Your task to perform on an android device: Search for usb-c to usb-a on amazon.com, select the first entry, add it to the cart, then select checkout. Image 0: 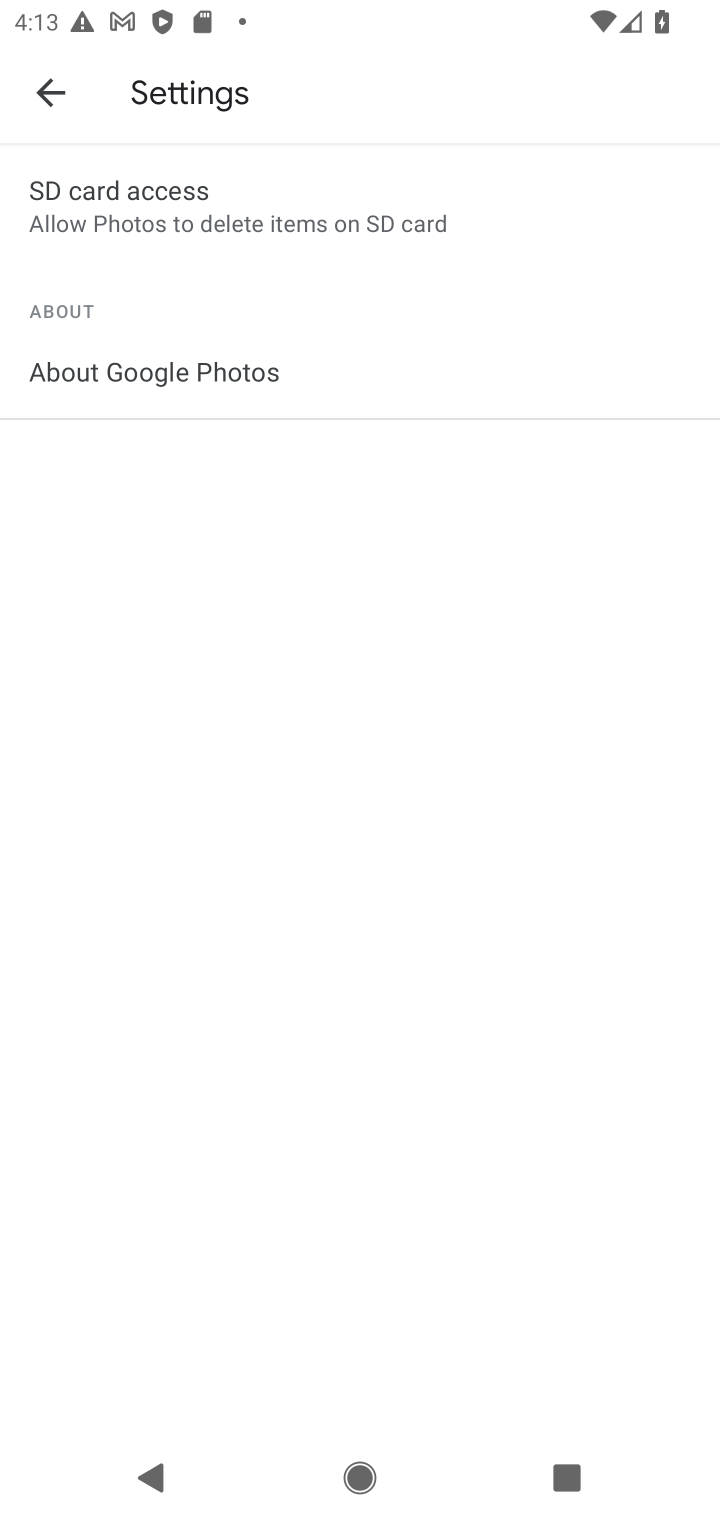
Step 0: press home button
Your task to perform on an android device: Search for usb-c to usb-a on amazon.com, select the first entry, add it to the cart, then select checkout. Image 1: 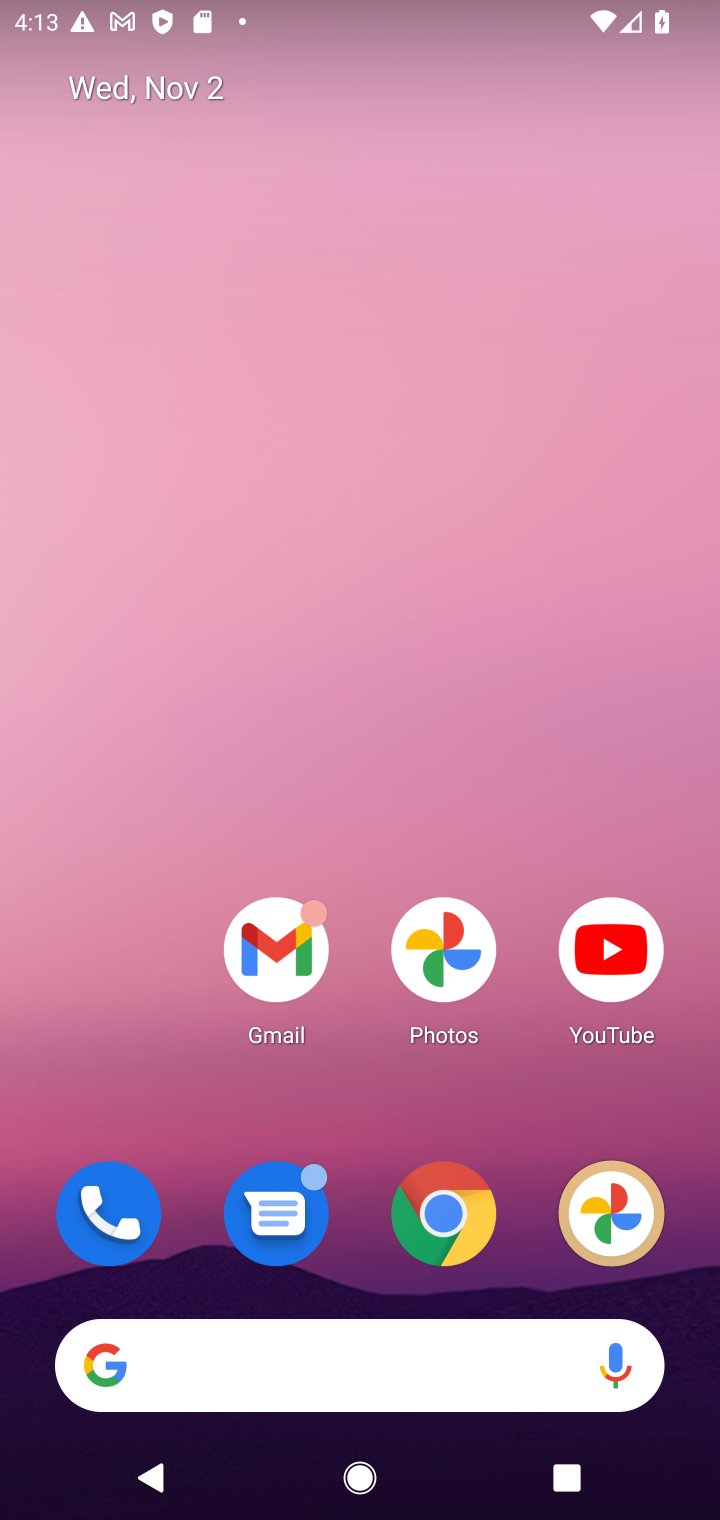
Step 1: drag from (346, 1245) to (431, 480)
Your task to perform on an android device: Search for usb-c to usb-a on amazon.com, select the first entry, add it to the cart, then select checkout. Image 2: 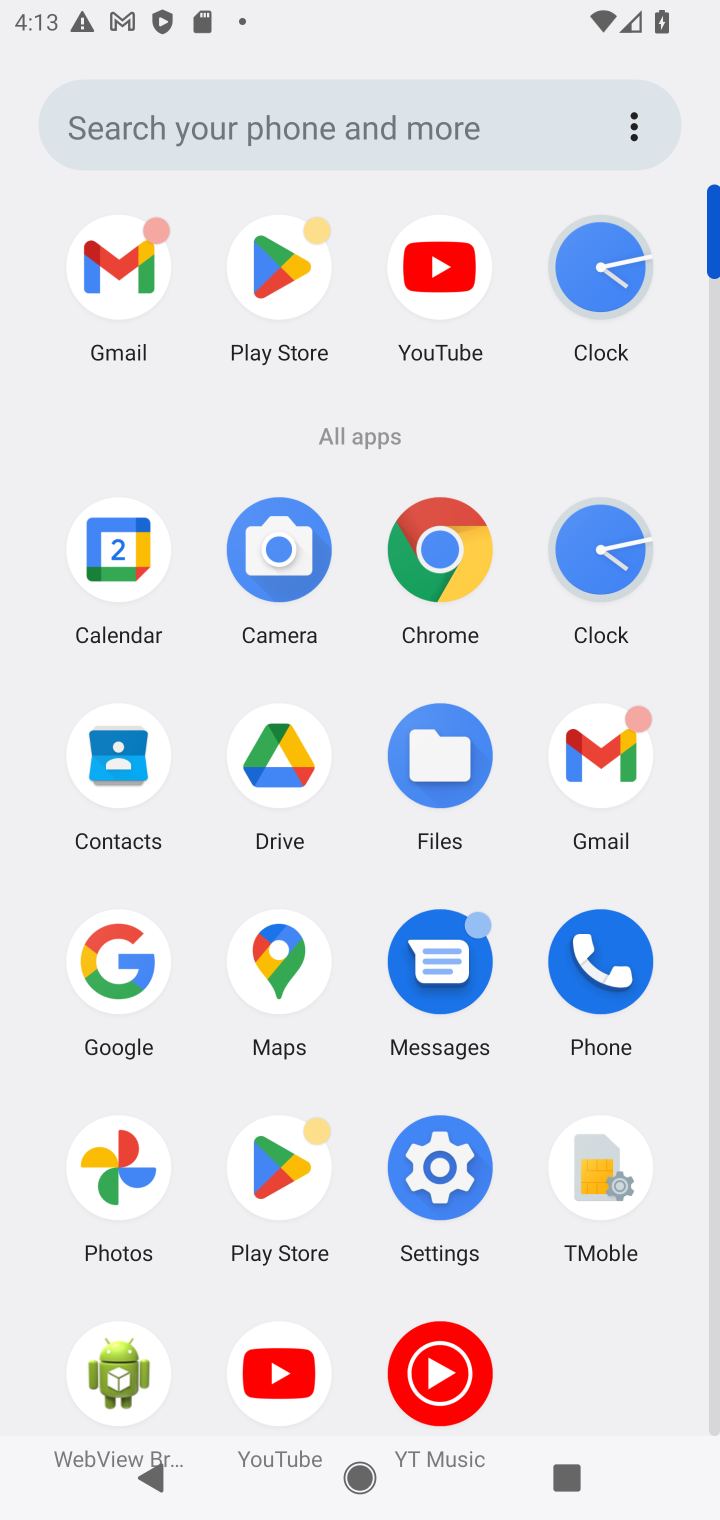
Step 2: click (106, 967)
Your task to perform on an android device: Search for usb-c to usb-a on amazon.com, select the first entry, add it to the cart, then select checkout. Image 3: 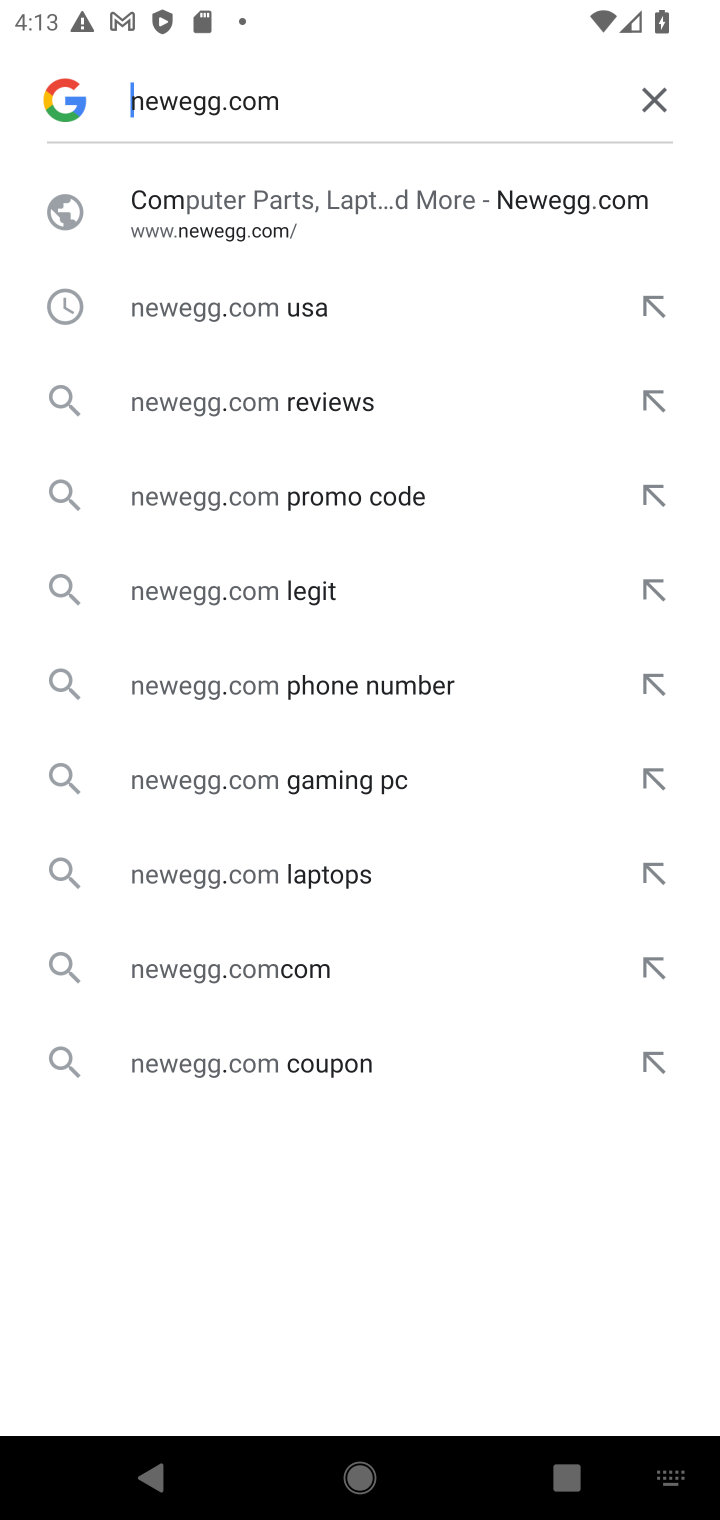
Step 3: click (660, 107)
Your task to perform on an android device: Search for usb-c to usb-a on amazon.com, select the first entry, add it to the cart, then select checkout. Image 4: 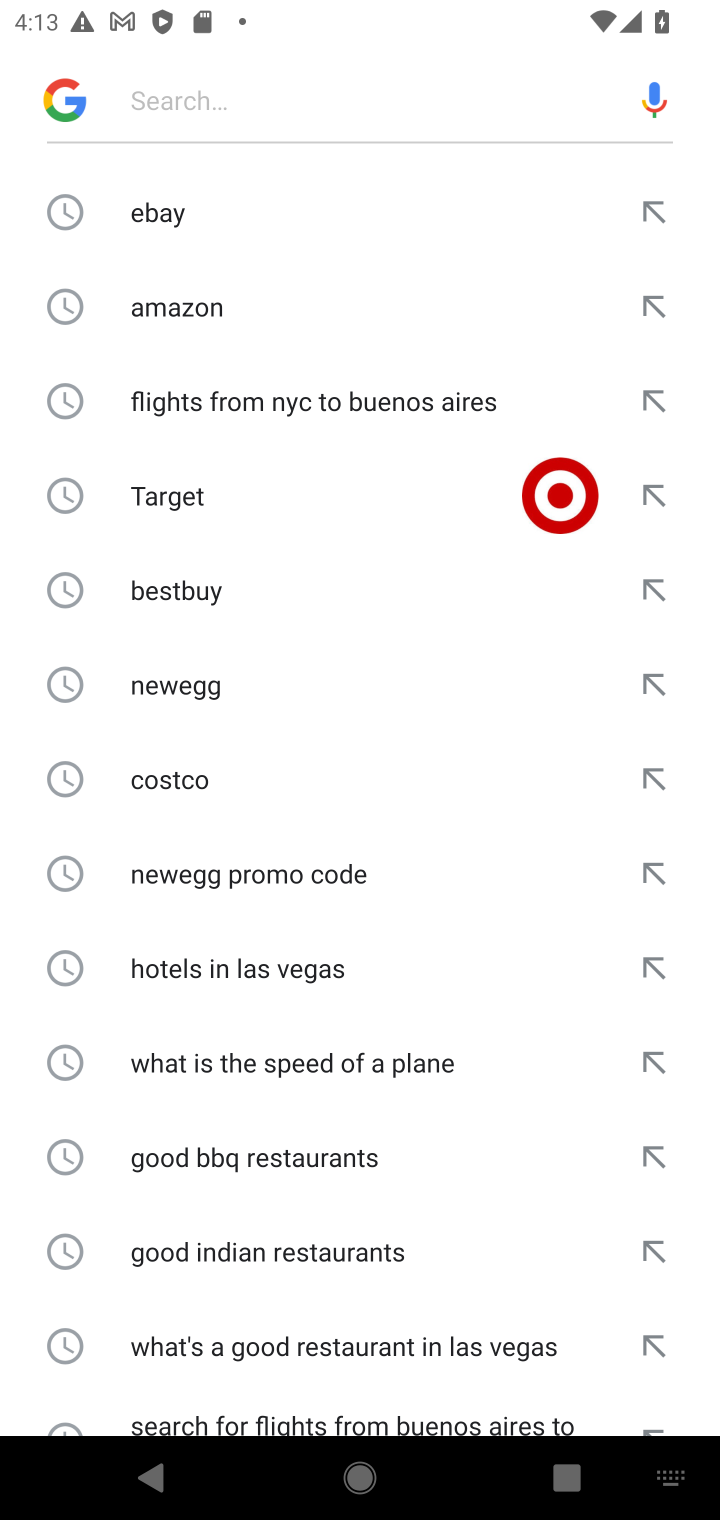
Step 4: type "amazon.com"
Your task to perform on an android device: Search for usb-c to usb-a on amazon.com, select the first entry, add it to the cart, then select checkout. Image 5: 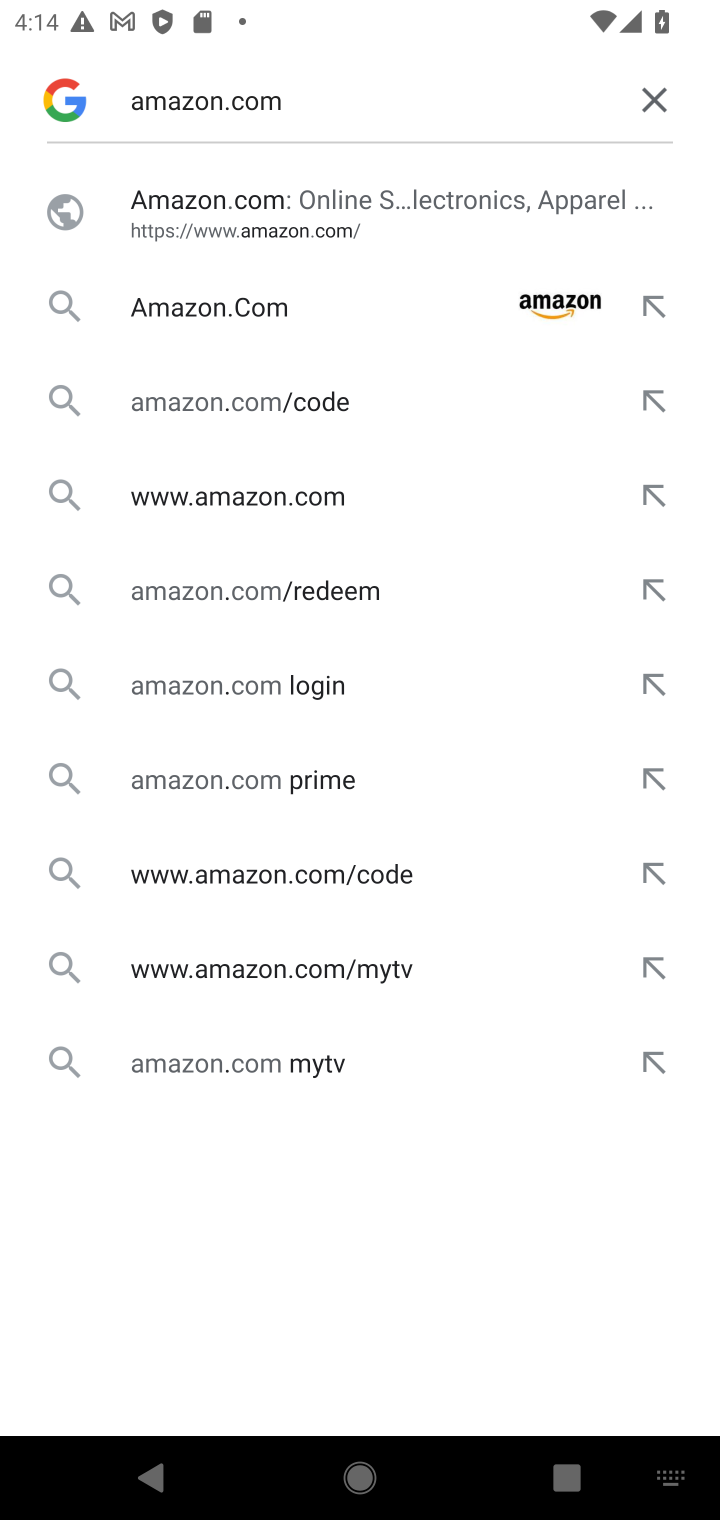
Step 5: click (375, 206)
Your task to perform on an android device: Search for usb-c to usb-a on amazon.com, select the first entry, add it to the cart, then select checkout. Image 6: 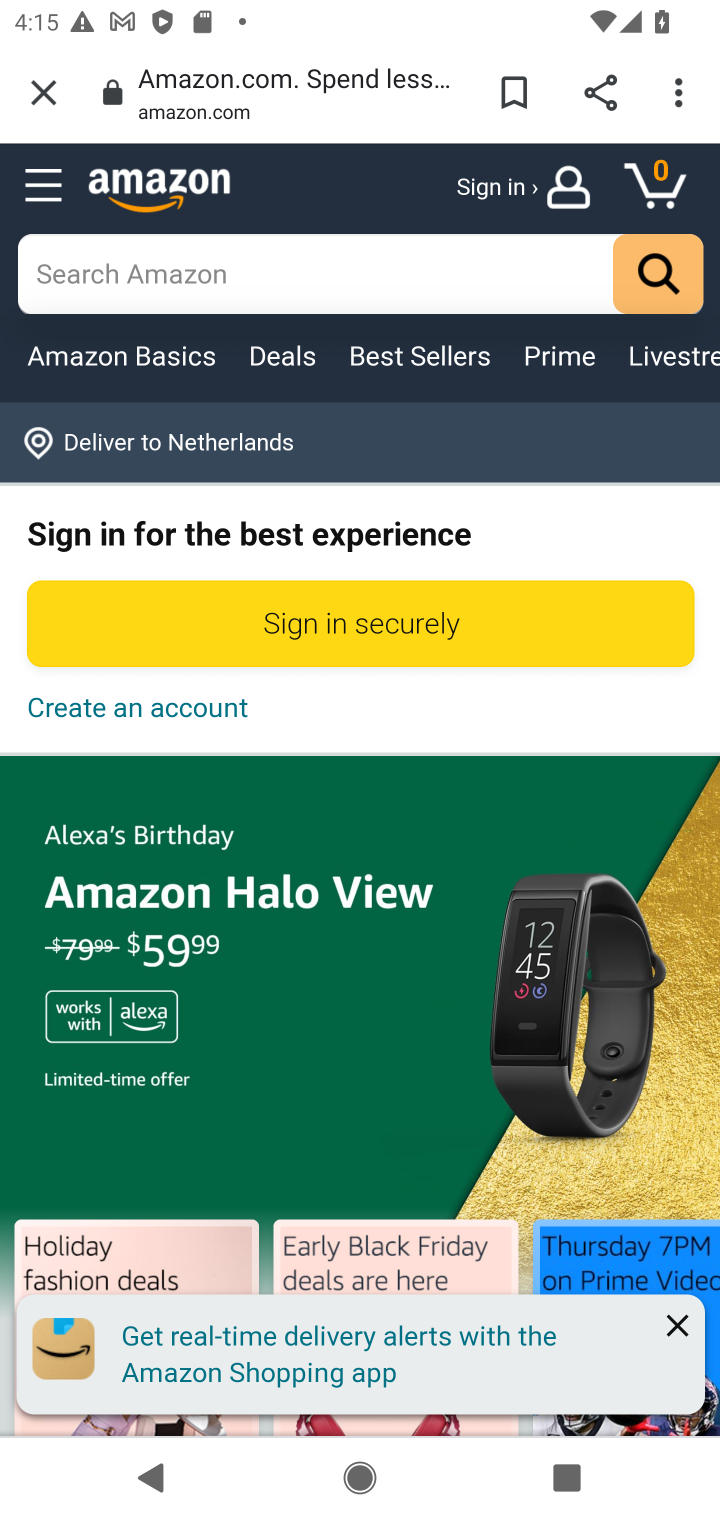
Step 6: click (319, 259)
Your task to perform on an android device: Search for usb-c to usb-a on amazon.com, select the first entry, add it to the cart, then select checkout. Image 7: 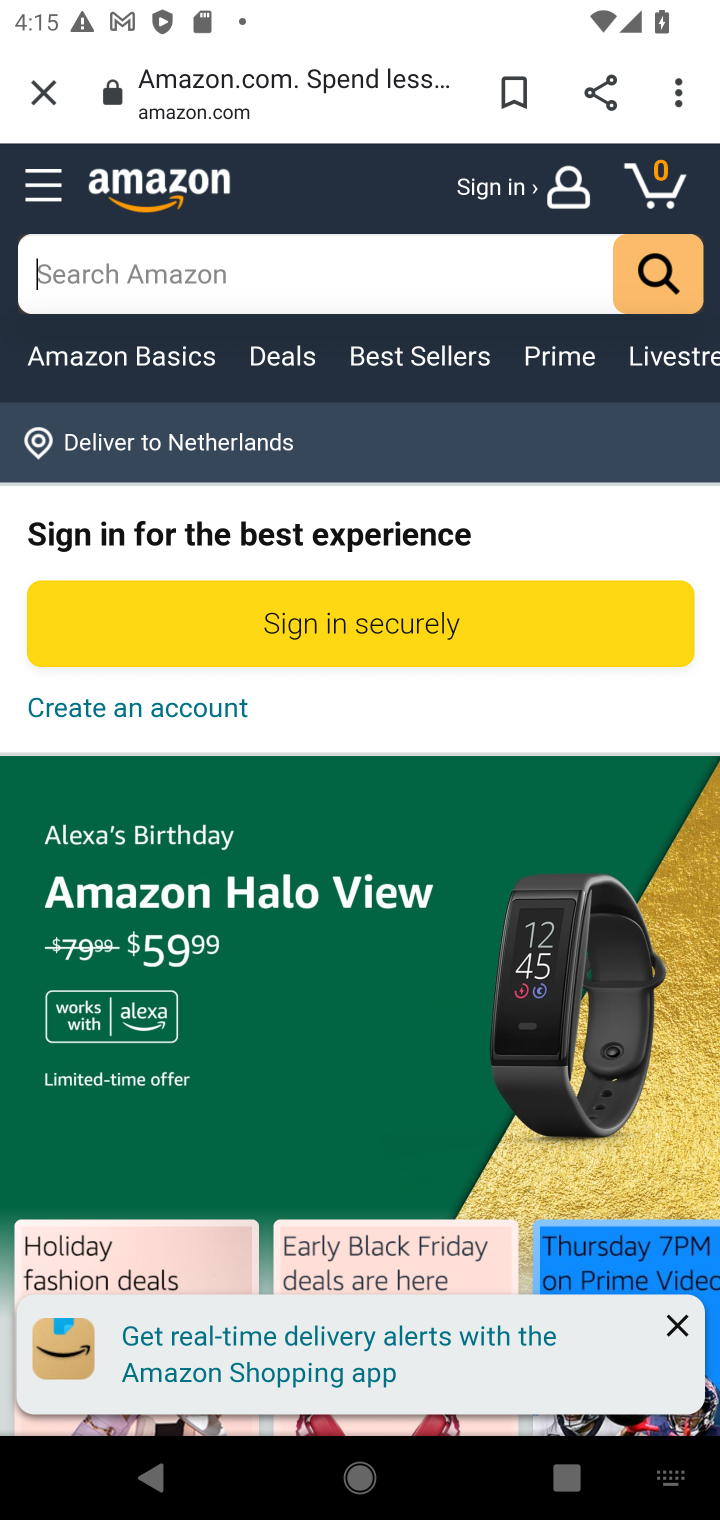
Step 7: type "usb-c to usb-a"
Your task to perform on an android device: Search for usb-c to usb-a on amazon.com, select the first entry, add it to the cart, then select checkout. Image 8: 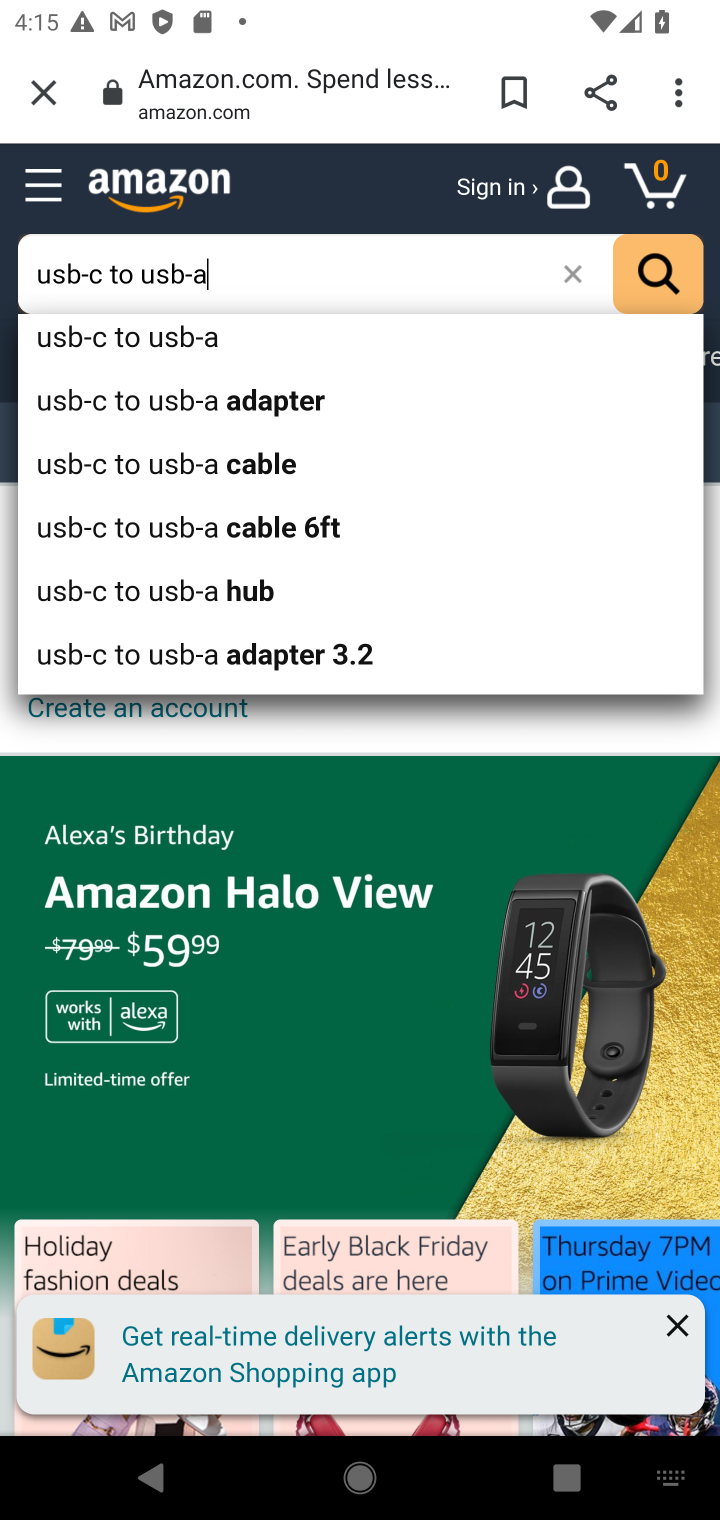
Step 8: click (209, 345)
Your task to perform on an android device: Search for usb-c to usb-a on amazon.com, select the first entry, add it to the cart, then select checkout. Image 9: 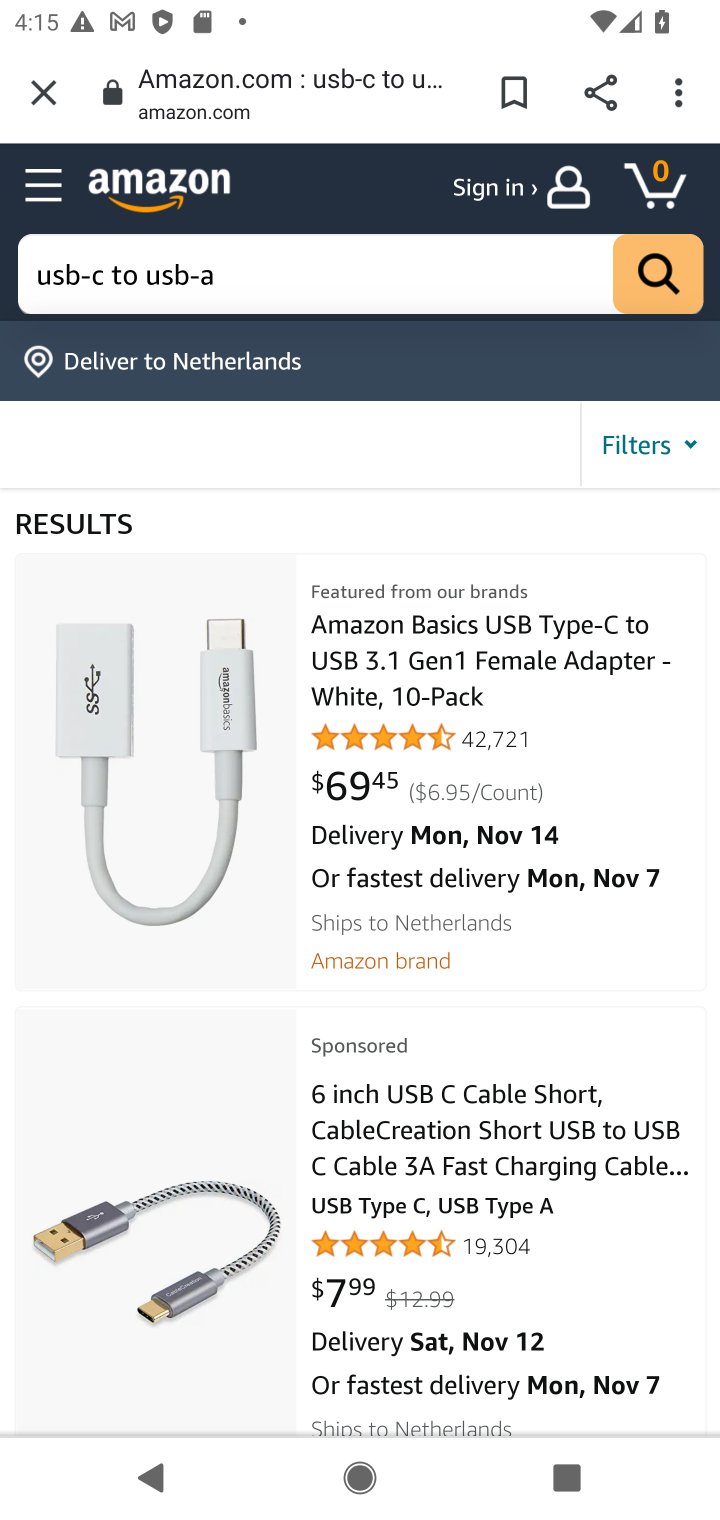
Step 9: click (272, 734)
Your task to perform on an android device: Search for usb-c to usb-a on amazon.com, select the first entry, add it to the cart, then select checkout. Image 10: 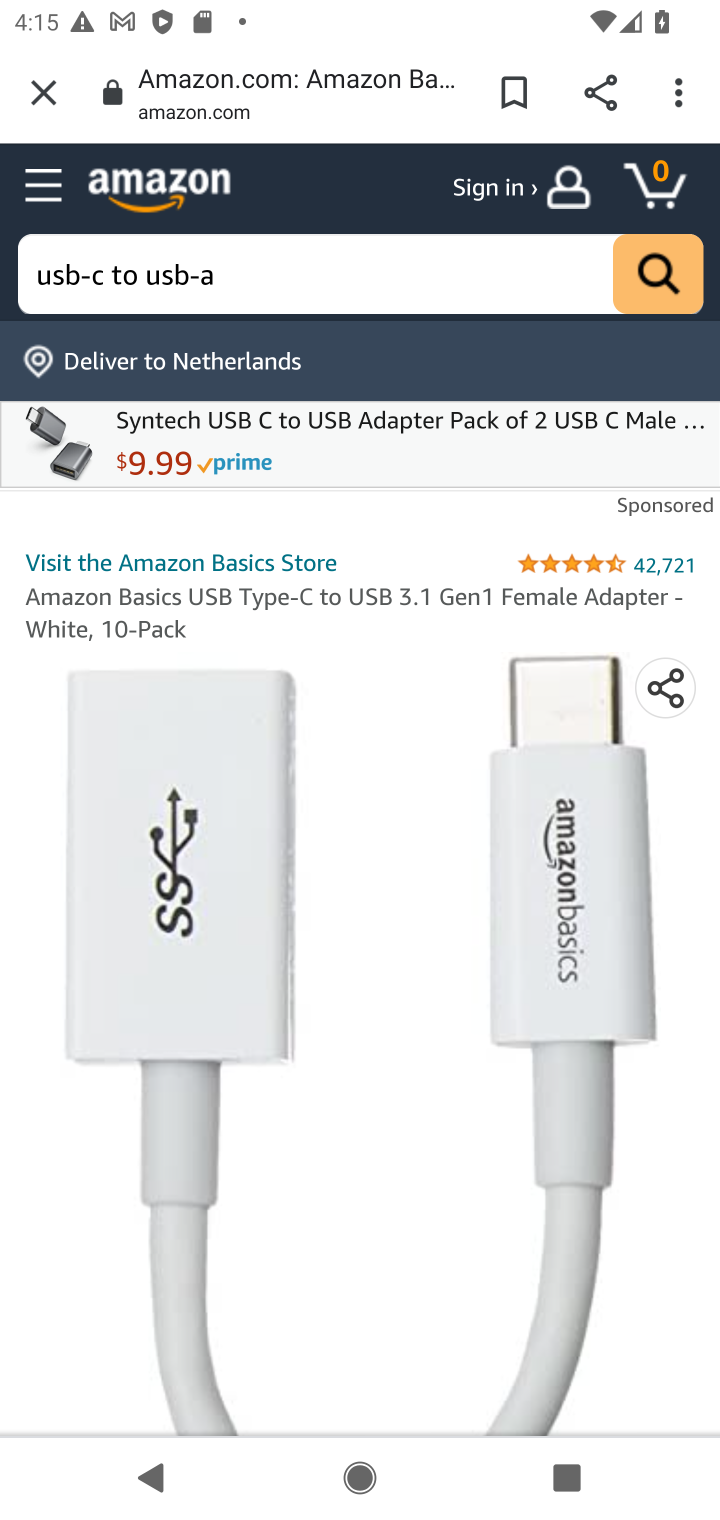
Step 10: drag from (511, 1230) to (511, 253)
Your task to perform on an android device: Search for usb-c to usb-a on amazon.com, select the first entry, add it to the cart, then select checkout. Image 11: 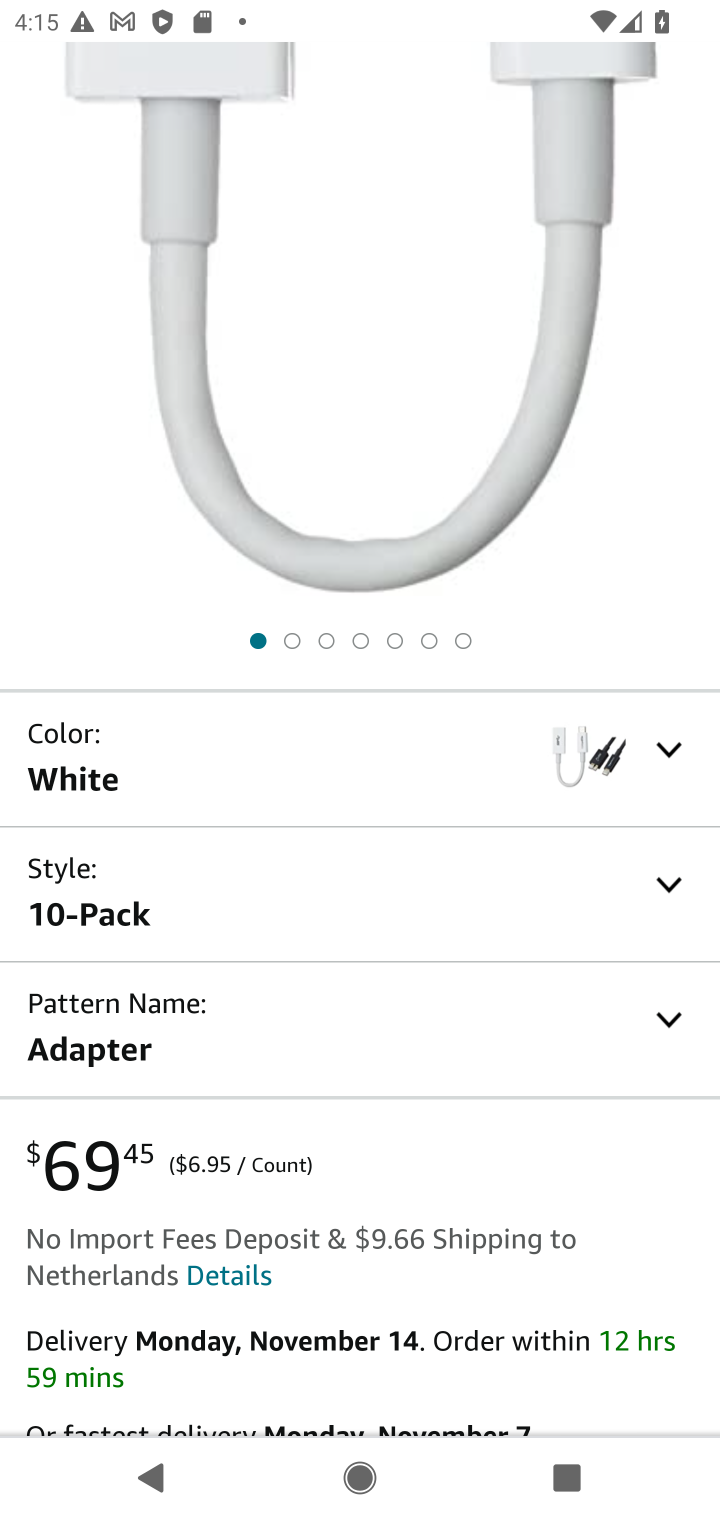
Step 11: drag from (483, 883) to (550, 388)
Your task to perform on an android device: Search for usb-c to usb-a on amazon.com, select the first entry, add it to the cart, then select checkout. Image 12: 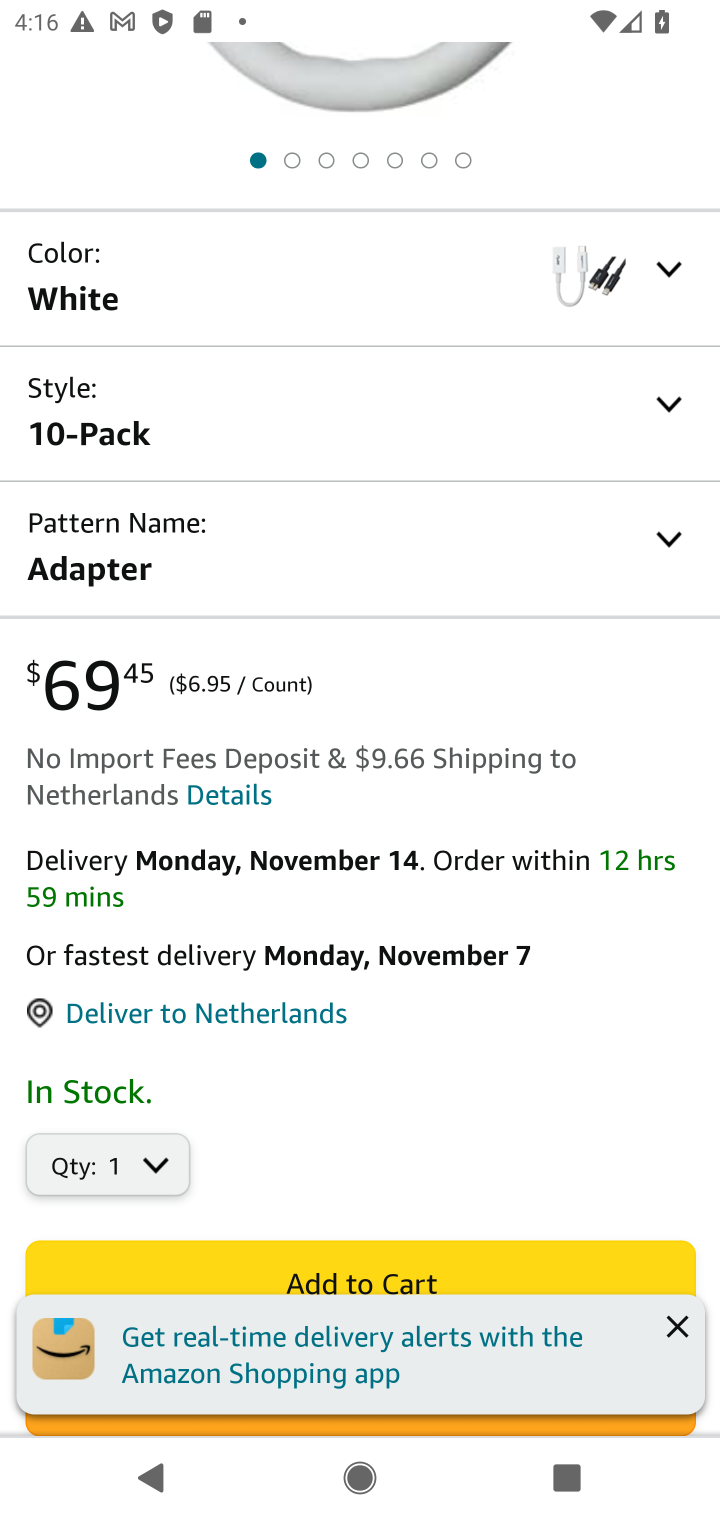
Step 12: click (675, 1321)
Your task to perform on an android device: Search for usb-c to usb-a on amazon.com, select the first entry, add it to the cart, then select checkout. Image 13: 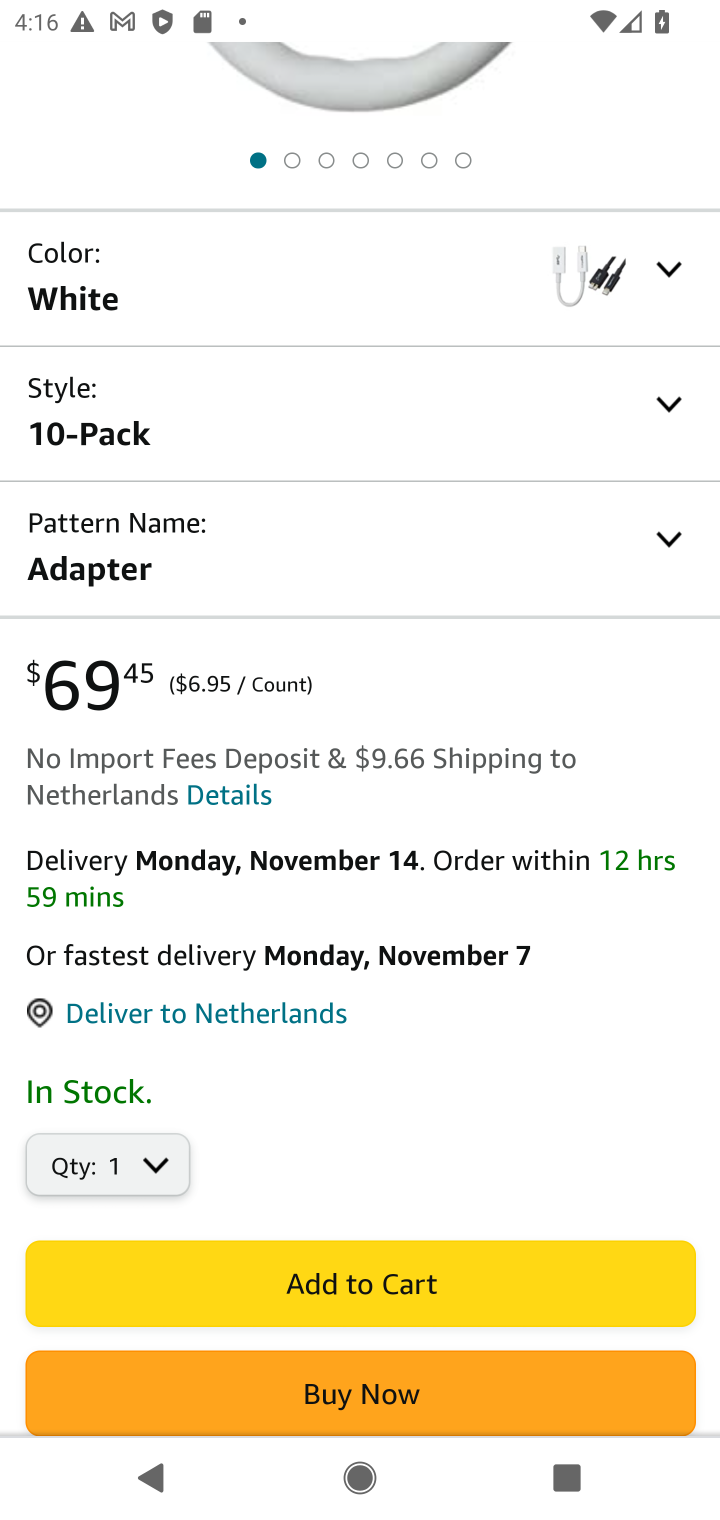
Step 13: click (552, 1276)
Your task to perform on an android device: Search for usb-c to usb-a on amazon.com, select the first entry, add it to the cart, then select checkout. Image 14: 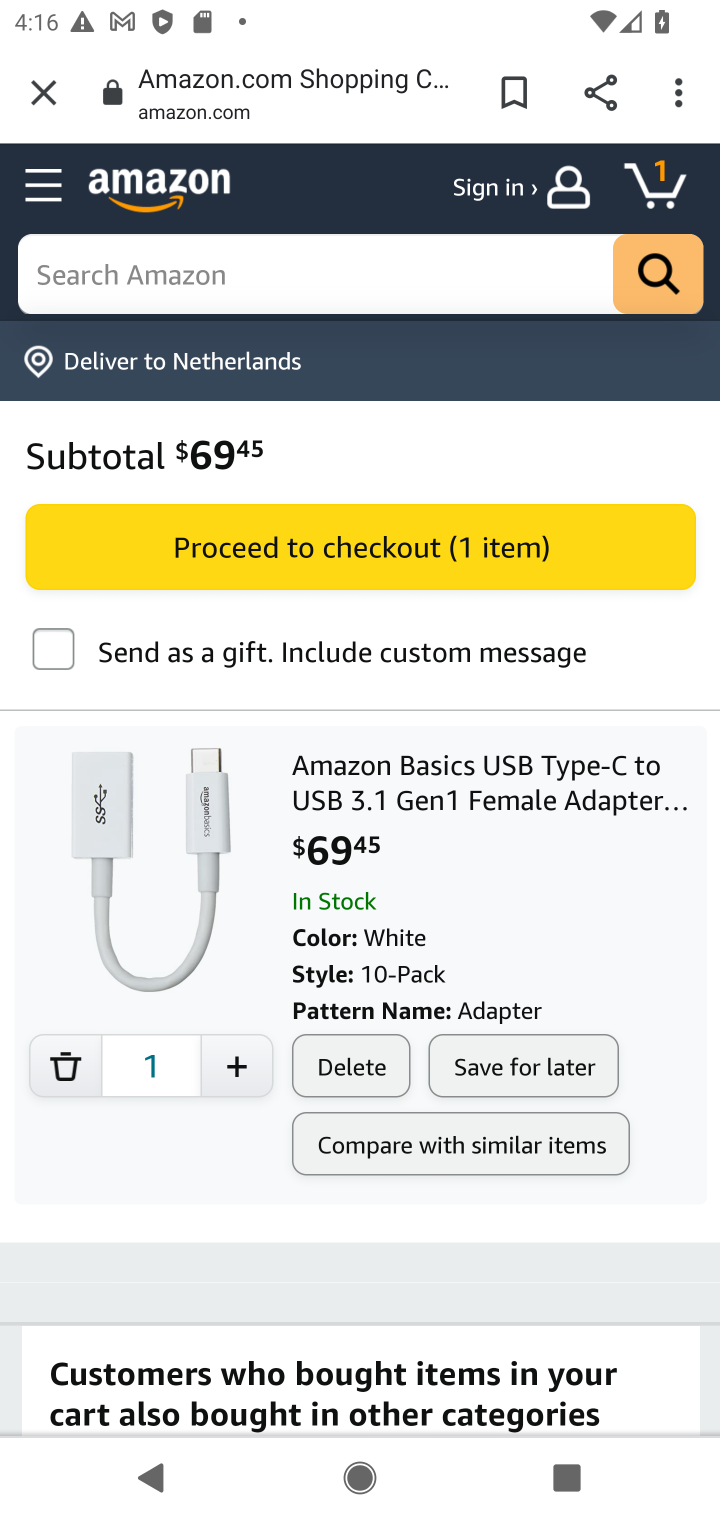
Step 14: task complete